Your task to perform on an android device: Search for sushi restaurants on Maps Image 0: 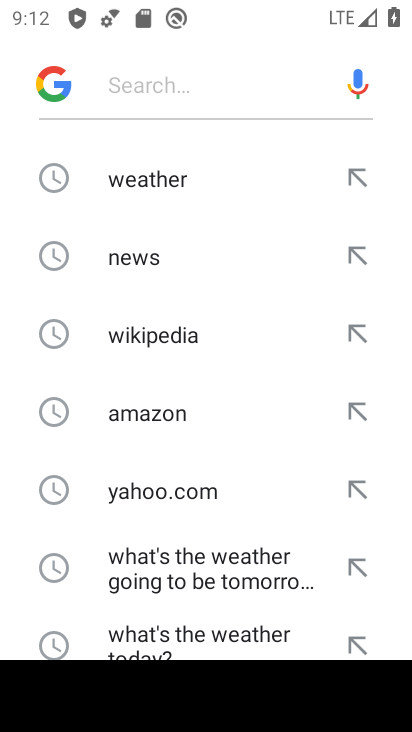
Step 0: type "sushi restaurants"
Your task to perform on an android device: Search for sushi restaurants on Maps Image 1: 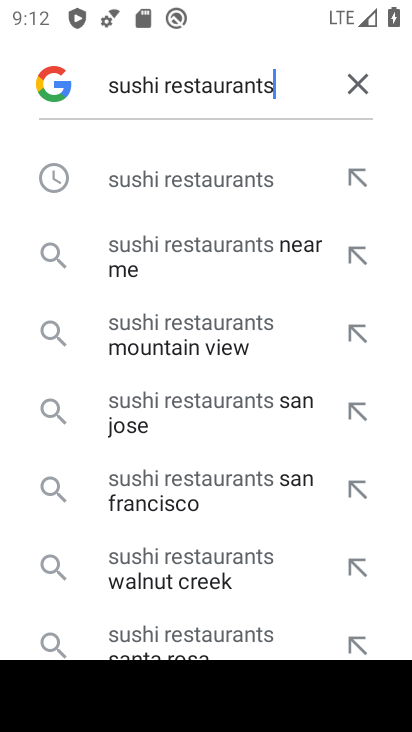
Step 1: press home button
Your task to perform on an android device: Search for sushi restaurants on Maps Image 2: 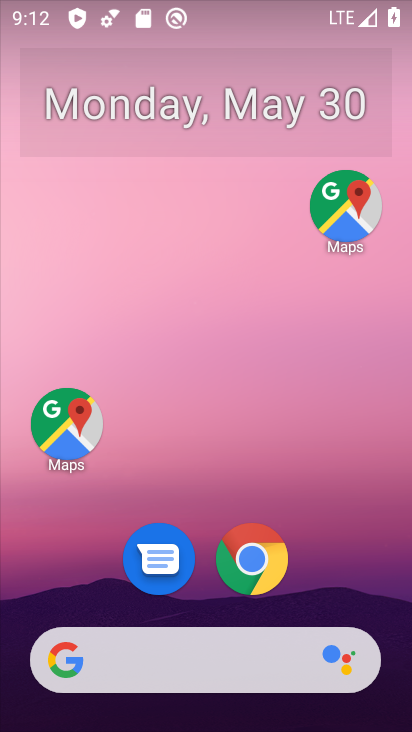
Step 2: click (61, 424)
Your task to perform on an android device: Search for sushi restaurants on Maps Image 3: 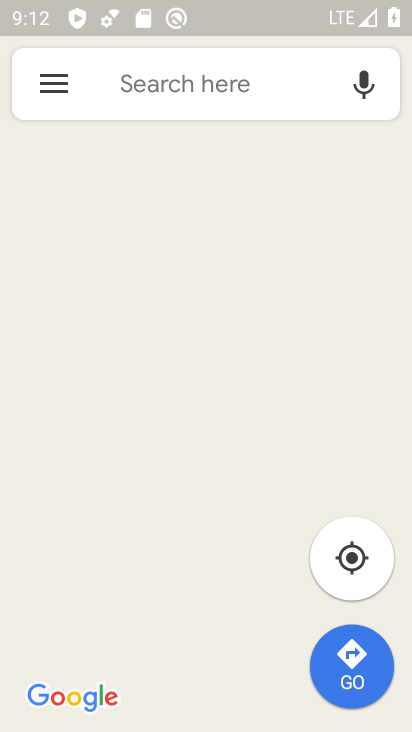
Step 3: click (206, 79)
Your task to perform on an android device: Search for sushi restaurants on Maps Image 4: 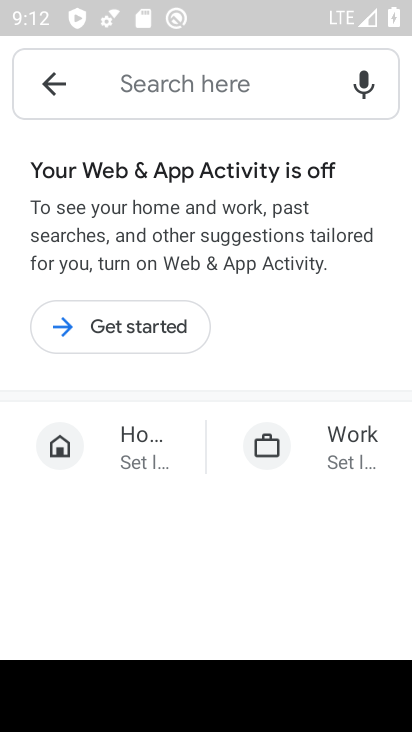
Step 4: type ""
Your task to perform on an android device: Search for sushi restaurants on Maps Image 5: 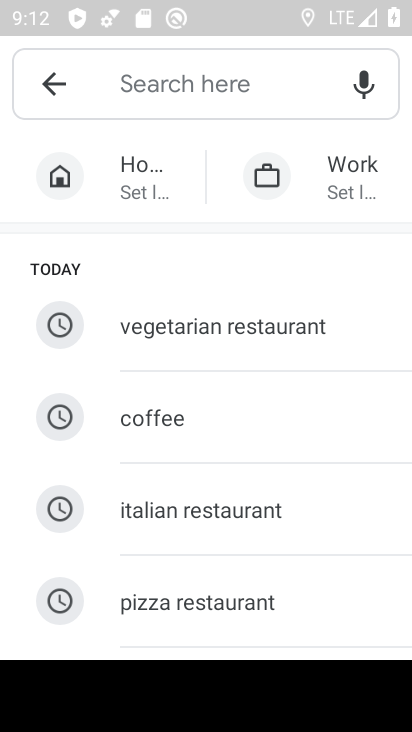
Step 5: type "sushi restaurants"
Your task to perform on an android device: Search for sushi restaurants on Maps Image 6: 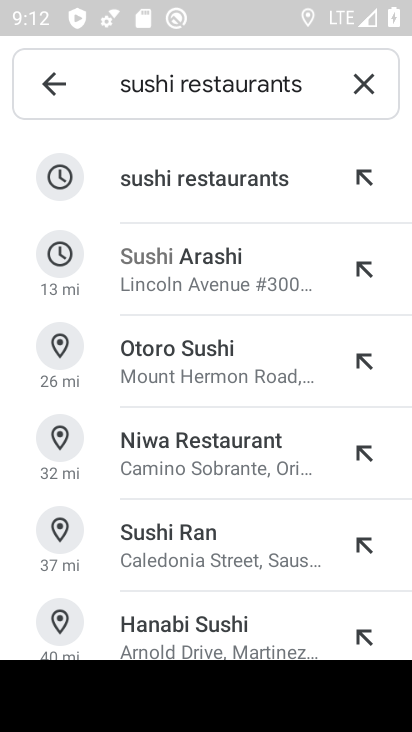
Step 6: click (253, 180)
Your task to perform on an android device: Search for sushi restaurants on Maps Image 7: 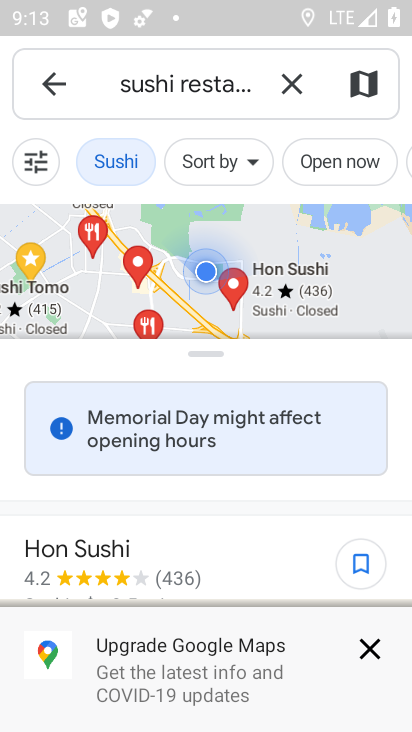
Step 7: task complete